Your task to perform on an android device: Open Chrome and go to settings Image 0: 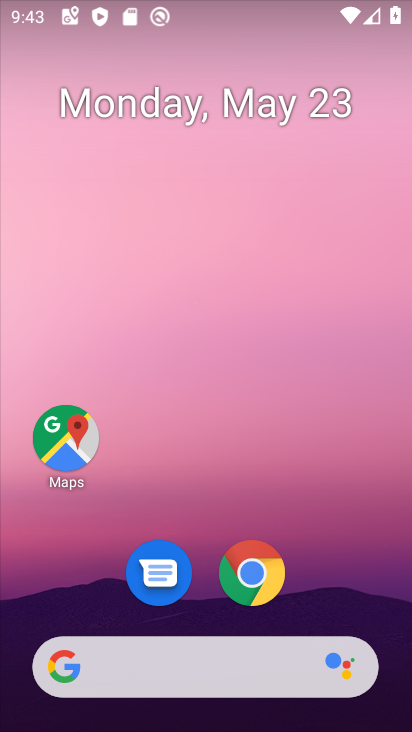
Step 0: drag from (371, 559) to (360, 235)
Your task to perform on an android device: Open Chrome and go to settings Image 1: 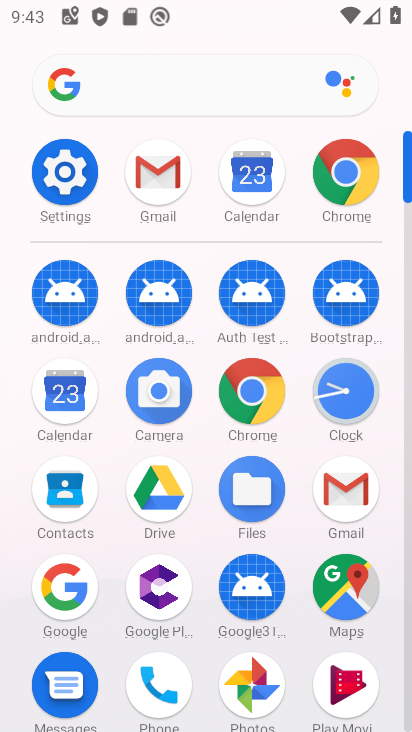
Step 1: click (257, 384)
Your task to perform on an android device: Open Chrome and go to settings Image 2: 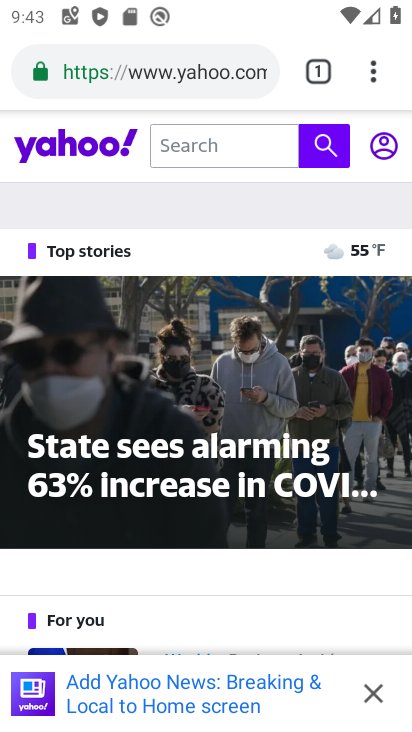
Step 2: click (371, 84)
Your task to perform on an android device: Open Chrome and go to settings Image 3: 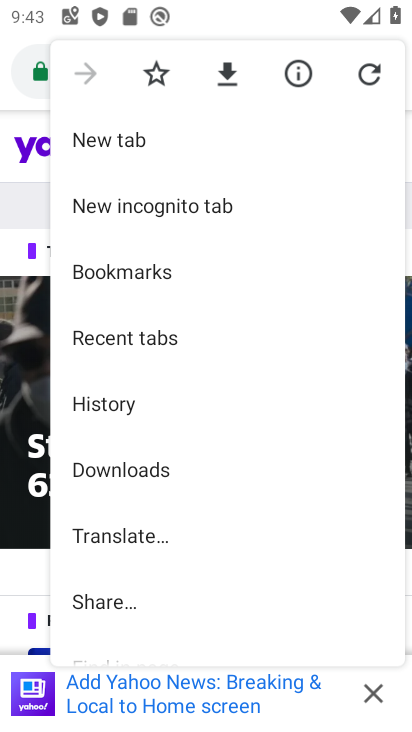
Step 3: drag from (317, 535) to (334, 427)
Your task to perform on an android device: Open Chrome and go to settings Image 4: 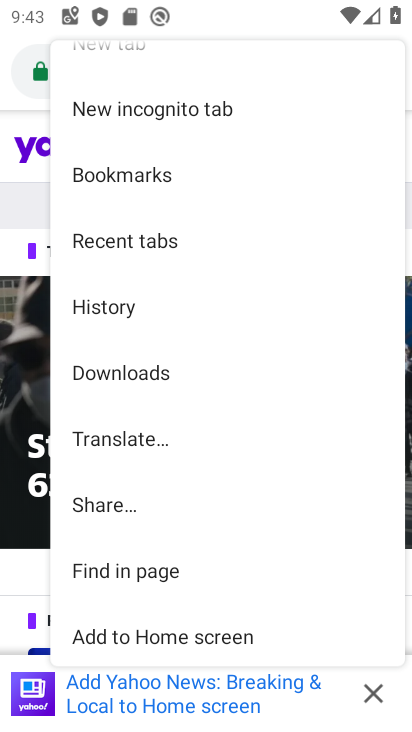
Step 4: drag from (330, 594) to (325, 452)
Your task to perform on an android device: Open Chrome and go to settings Image 5: 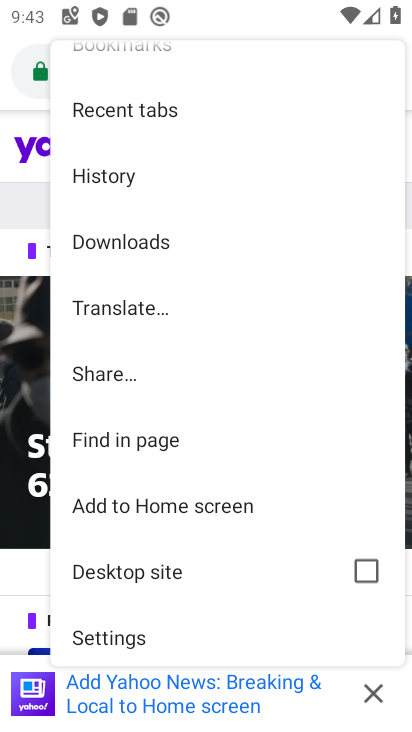
Step 5: drag from (284, 612) to (291, 463)
Your task to perform on an android device: Open Chrome and go to settings Image 6: 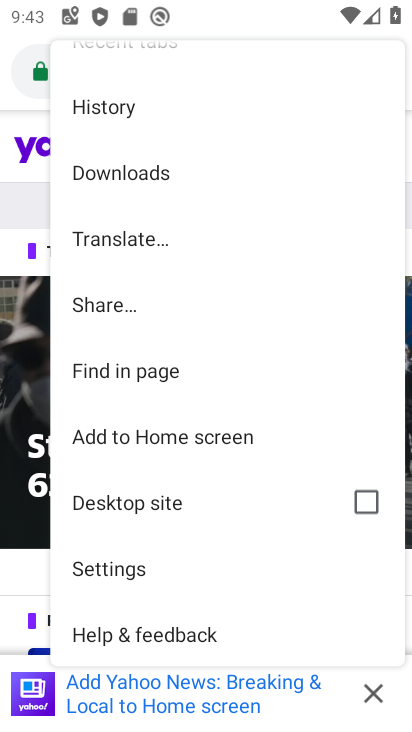
Step 6: drag from (266, 594) to (276, 468)
Your task to perform on an android device: Open Chrome and go to settings Image 7: 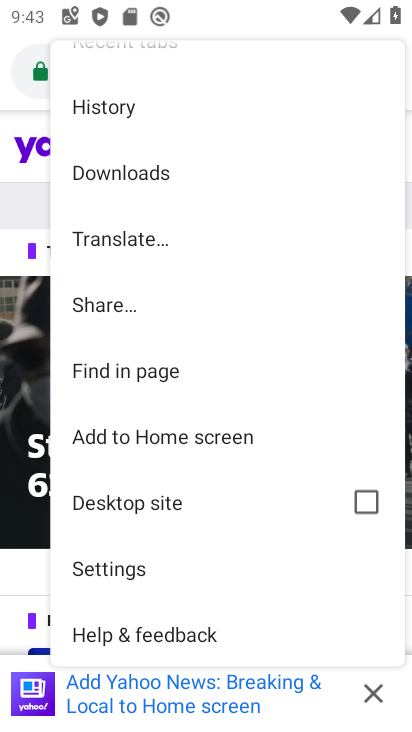
Step 7: click (147, 575)
Your task to perform on an android device: Open Chrome and go to settings Image 8: 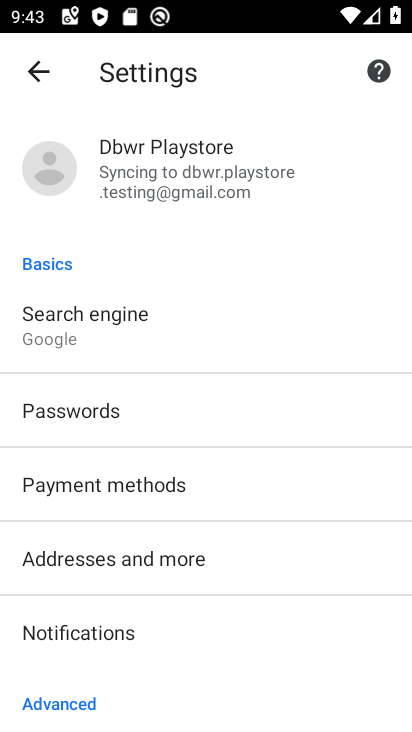
Step 8: task complete